Your task to perform on an android device: Open internet settings Image 0: 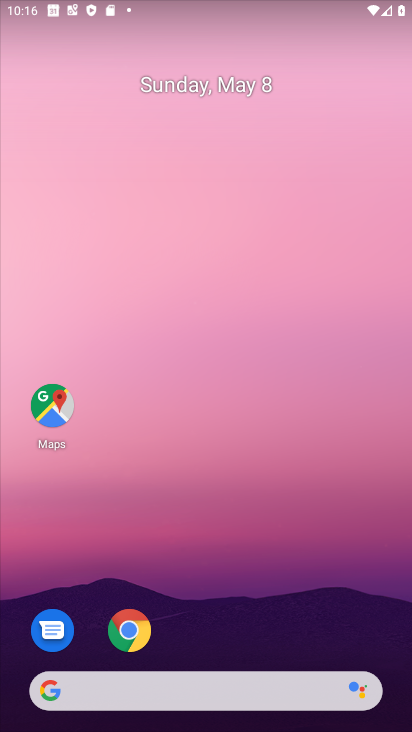
Step 0: drag from (205, 727) to (194, 247)
Your task to perform on an android device: Open internet settings Image 1: 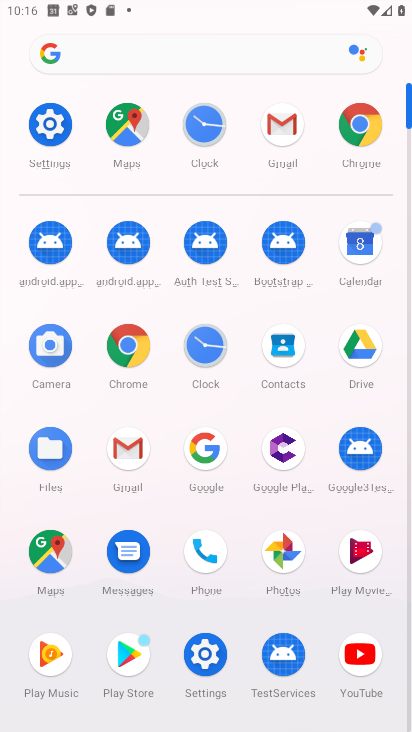
Step 1: click (50, 121)
Your task to perform on an android device: Open internet settings Image 2: 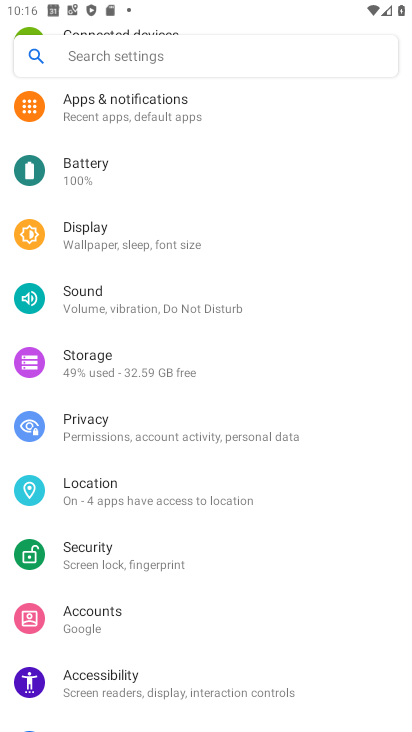
Step 2: drag from (325, 171) to (320, 475)
Your task to perform on an android device: Open internet settings Image 3: 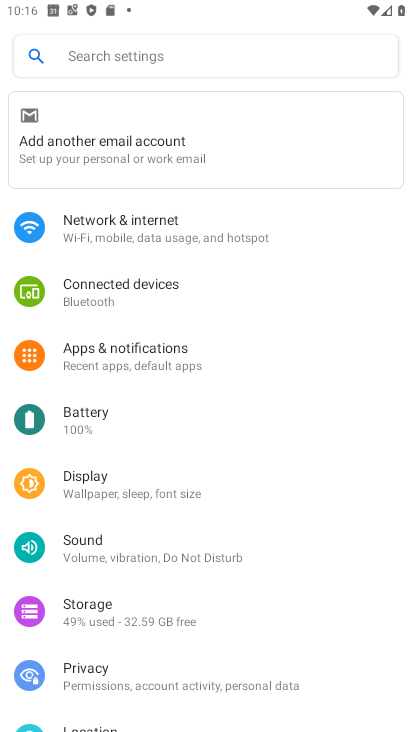
Step 3: click (114, 233)
Your task to perform on an android device: Open internet settings Image 4: 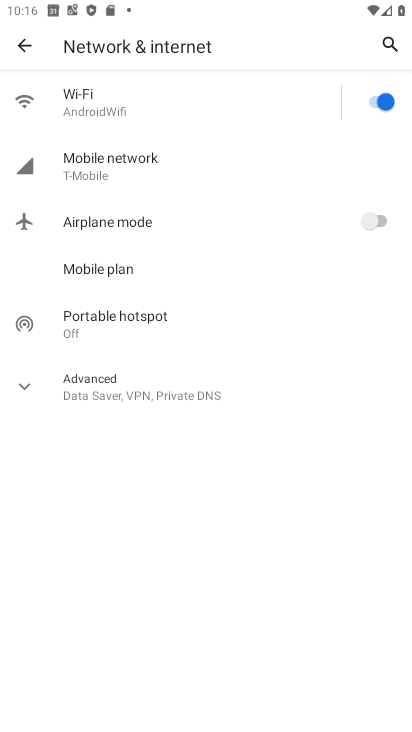
Step 4: task complete